Your task to perform on an android device: open a bookmark in the chrome app Image 0: 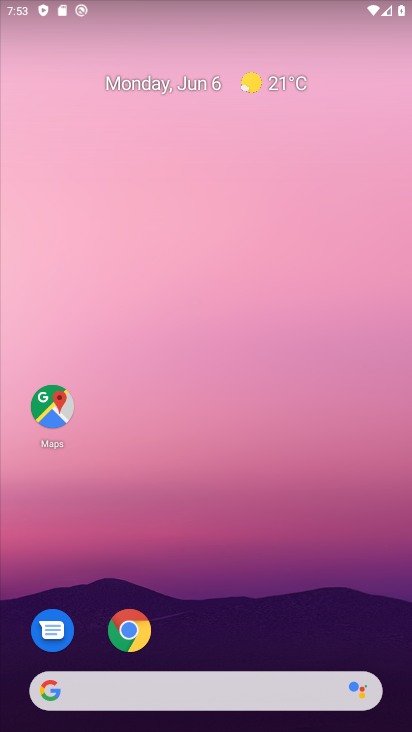
Step 0: click (128, 632)
Your task to perform on an android device: open a bookmark in the chrome app Image 1: 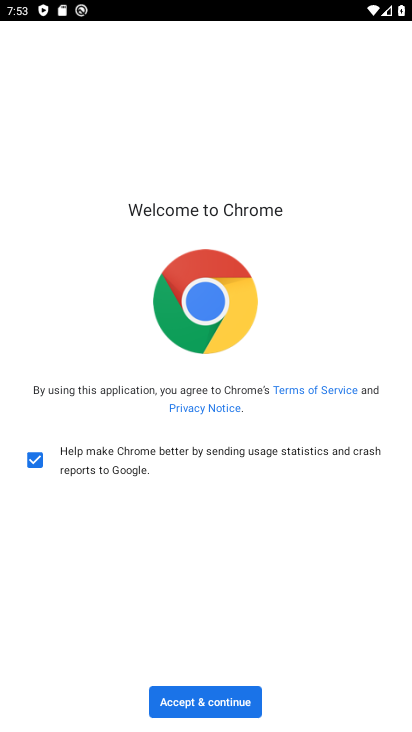
Step 1: click (178, 701)
Your task to perform on an android device: open a bookmark in the chrome app Image 2: 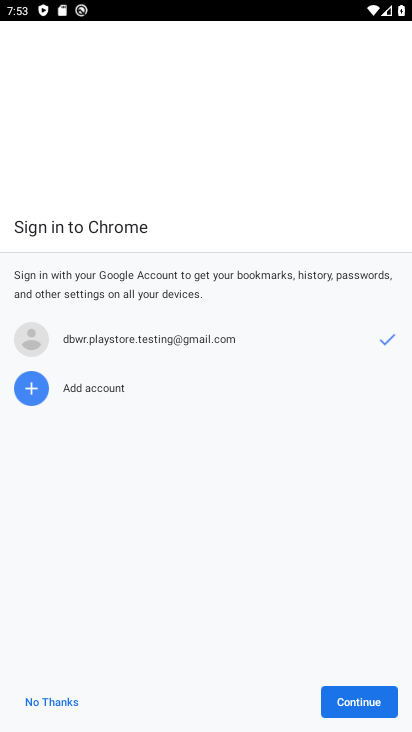
Step 2: click (359, 702)
Your task to perform on an android device: open a bookmark in the chrome app Image 3: 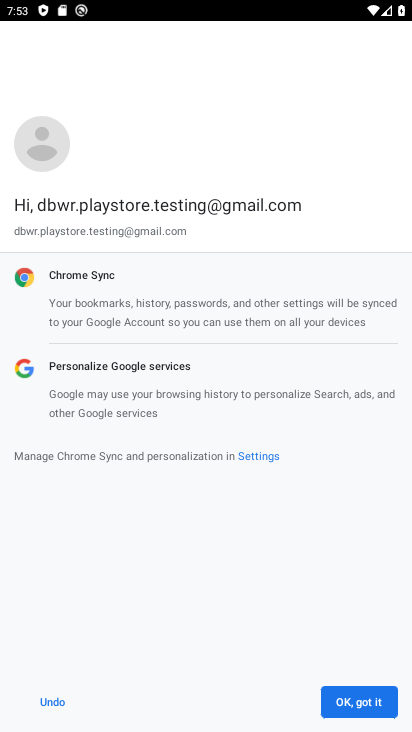
Step 3: click (359, 702)
Your task to perform on an android device: open a bookmark in the chrome app Image 4: 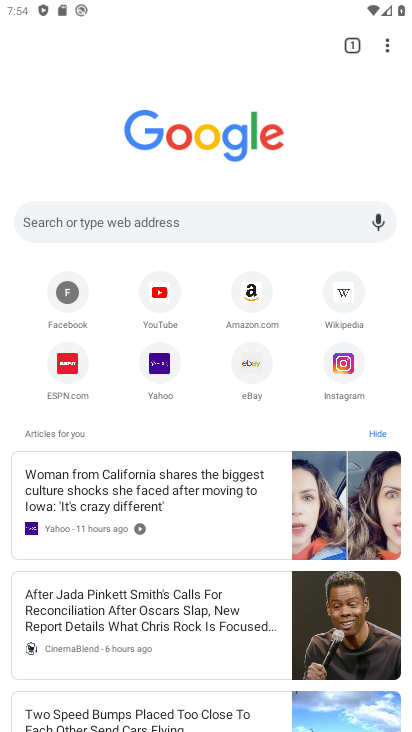
Step 4: click (388, 42)
Your task to perform on an android device: open a bookmark in the chrome app Image 5: 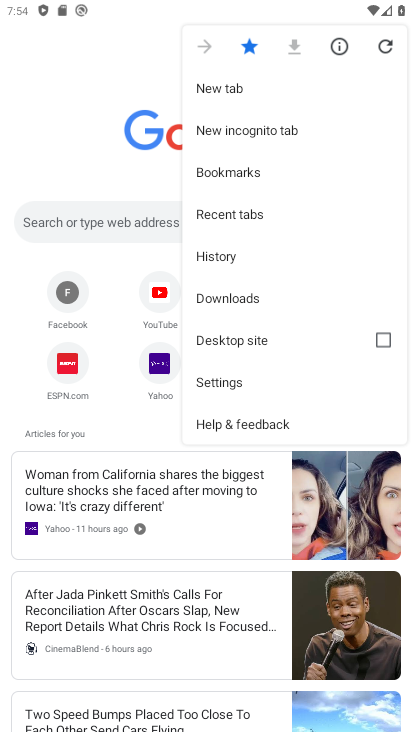
Step 5: click (246, 174)
Your task to perform on an android device: open a bookmark in the chrome app Image 6: 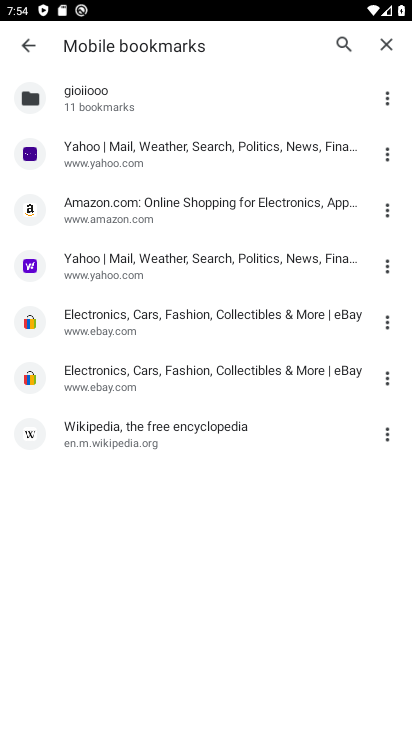
Step 6: task complete